Your task to perform on an android device: change your default location settings in chrome Image 0: 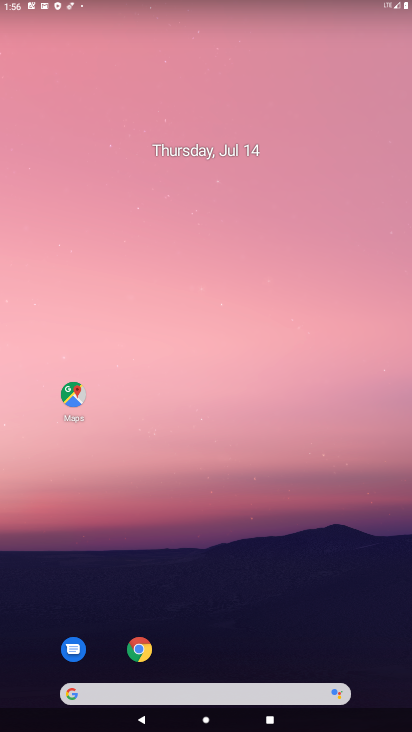
Step 0: drag from (385, 653) to (183, 0)
Your task to perform on an android device: change your default location settings in chrome Image 1: 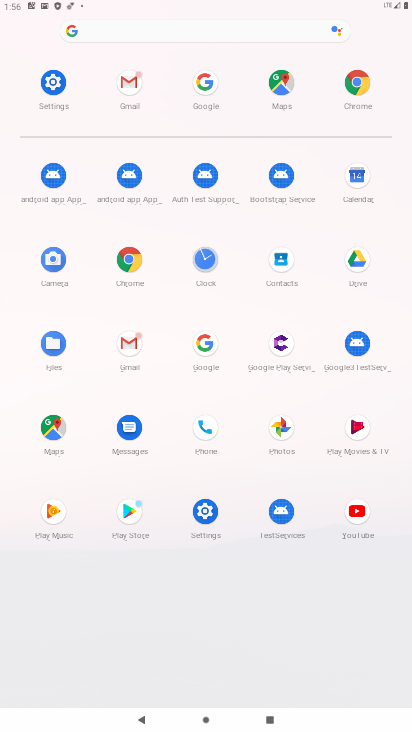
Step 1: click (120, 261)
Your task to perform on an android device: change your default location settings in chrome Image 2: 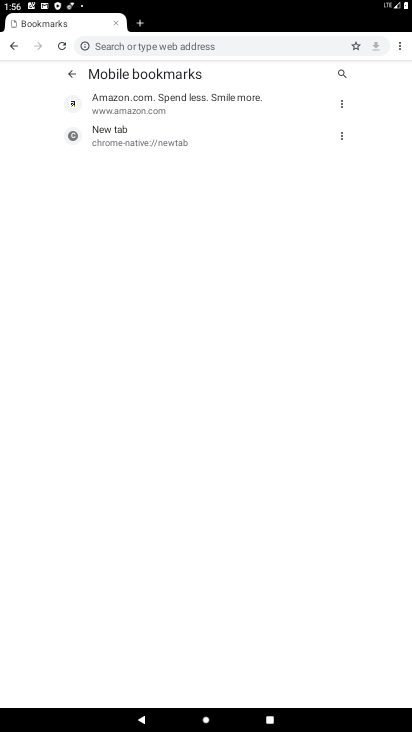
Step 2: click (401, 41)
Your task to perform on an android device: change your default location settings in chrome Image 3: 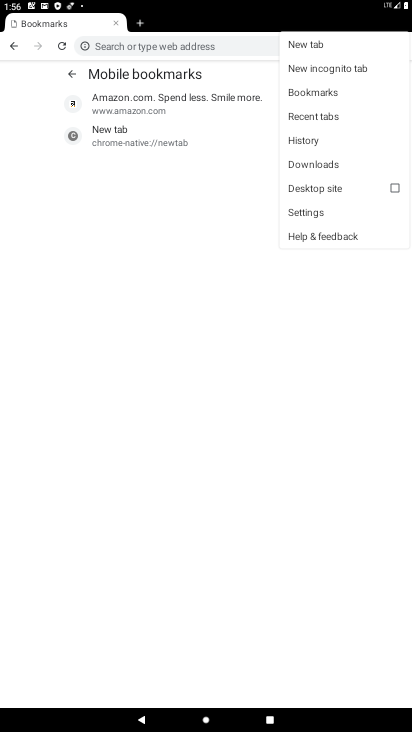
Step 3: click (312, 209)
Your task to perform on an android device: change your default location settings in chrome Image 4: 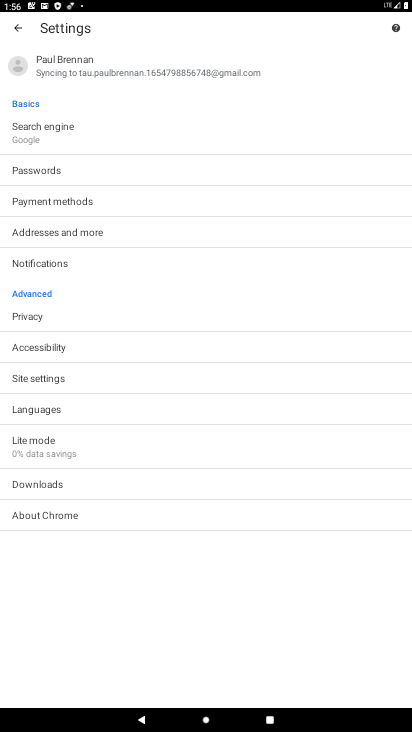
Step 4: click (72, 142)
Your task to perform on an android device: change your default location settings in chrome Image 5: 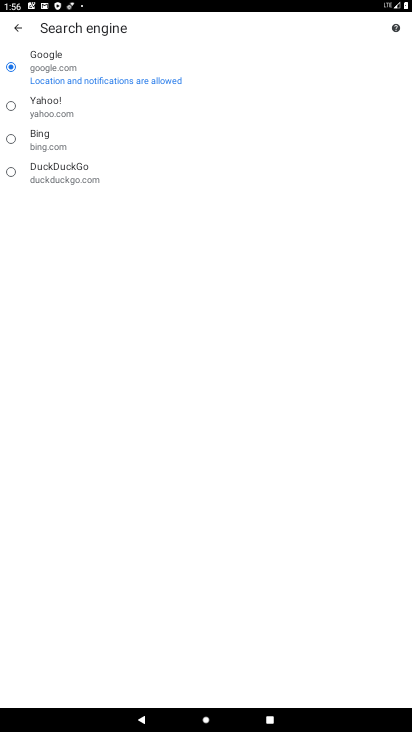
Step 5: click (41, 138)
Your task to perform on an android device: change your default location settings in chrome Image 6: 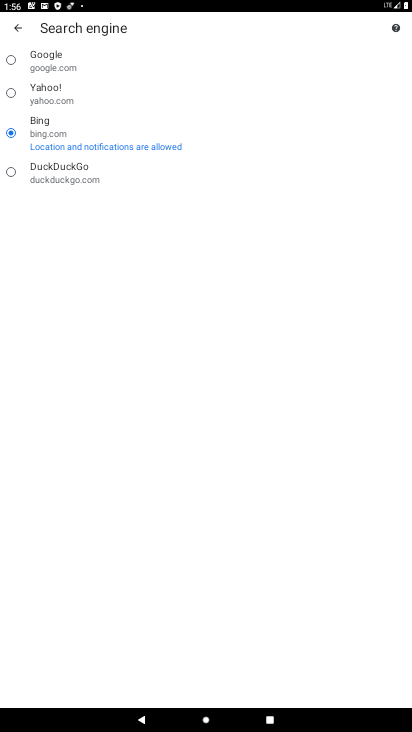
Step 6: task complete